Your task to perform on an android device: open app "Mercado Libre" Image 0: 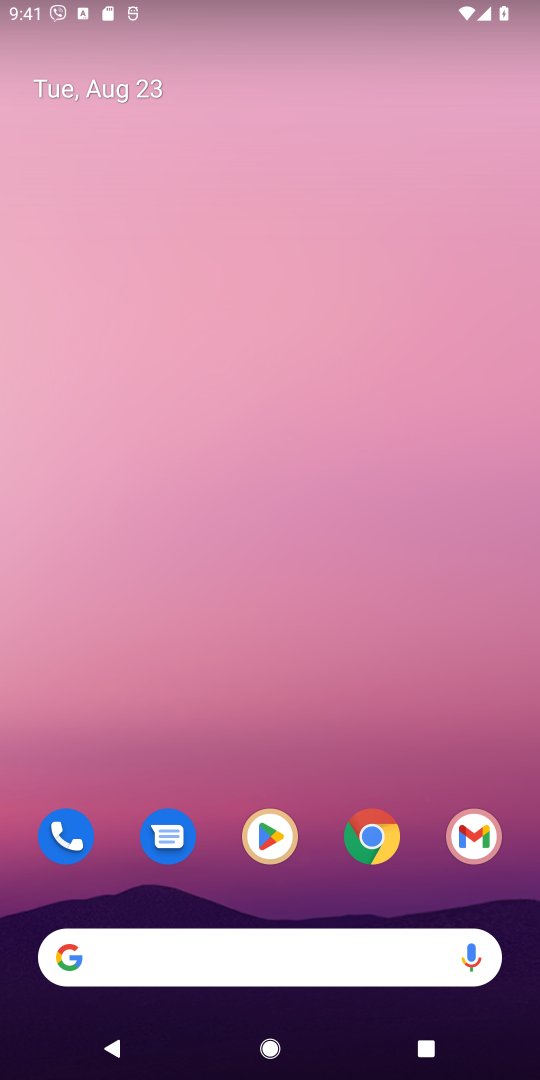
Step 0: click (272, 849)
Your task to perform on an android device: open app "Mercado Libre" Image 1: 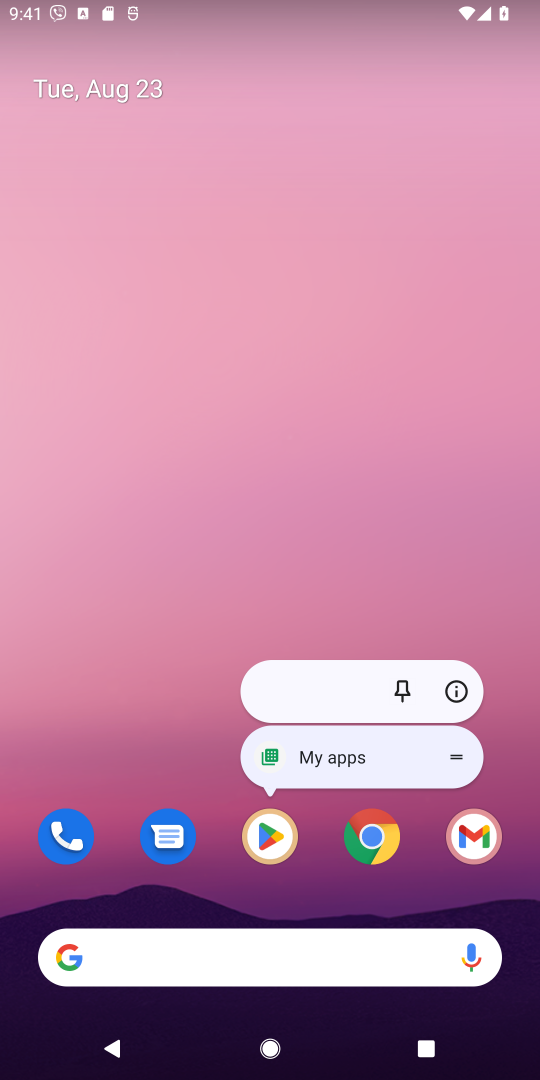
Step 1: click (272, 837)
Your task to perform on an android device: open app "Mercado Libre" Image 2: 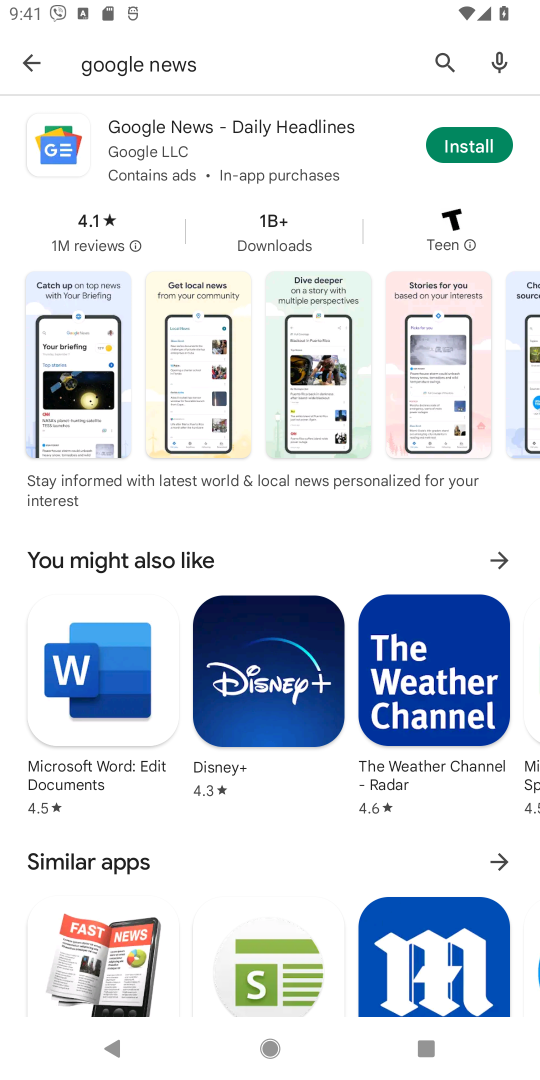
Step 2: click (445, 60)
Your task to perform on an android device: open app "Mercado Libre" Image 3: 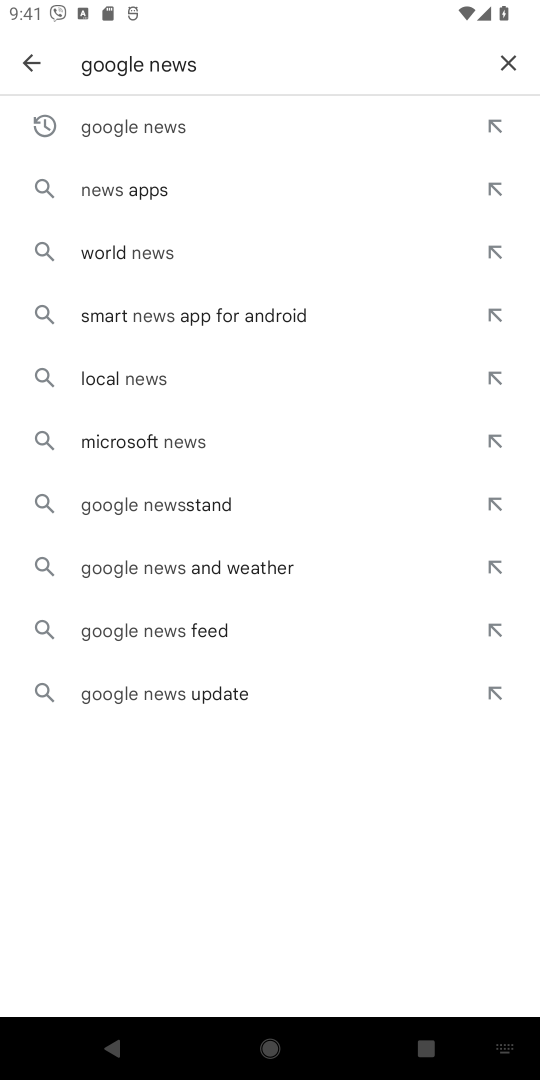
Step 3: click (504, 54)
Your task to perform on an android device: open app "Mercado Libre" Image 4: 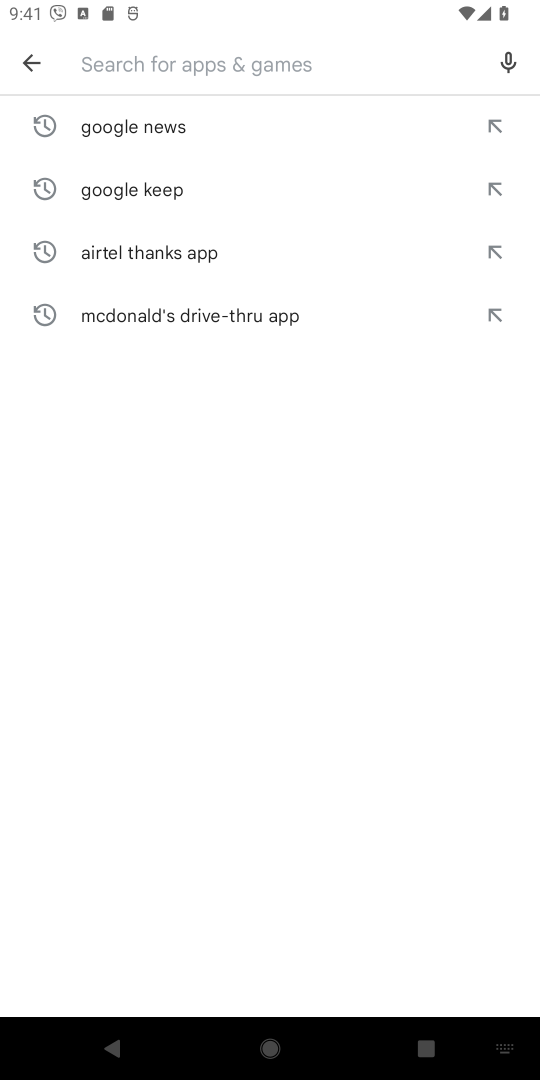
Step 4: type "Mercado Libre"
Your task to perform on an android device: open app "Mercado Libre" Image 5: 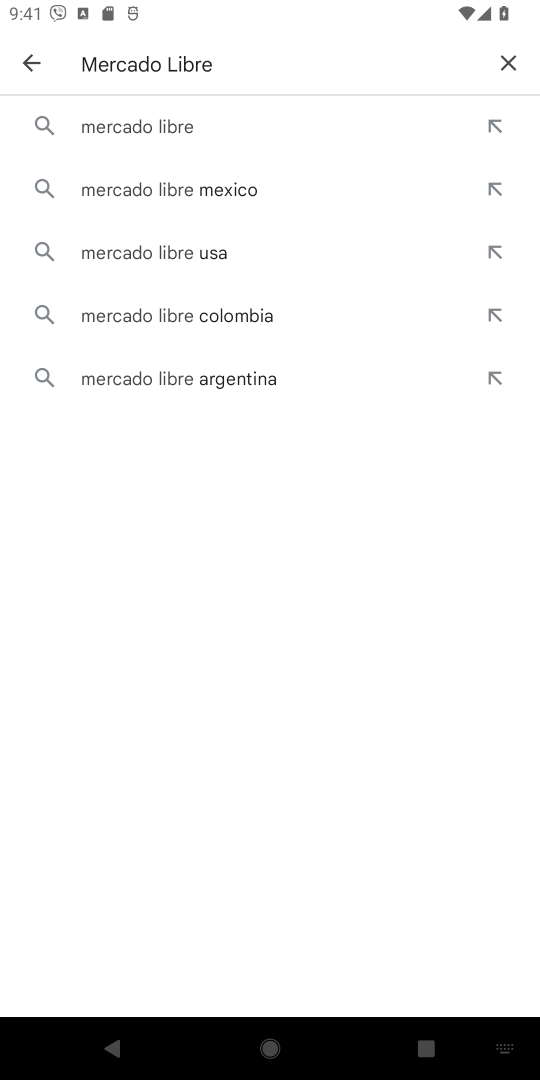
Step 5: click (194, 111)
Your task to perform on an android device: open app "Mercado Libre" Image 6: 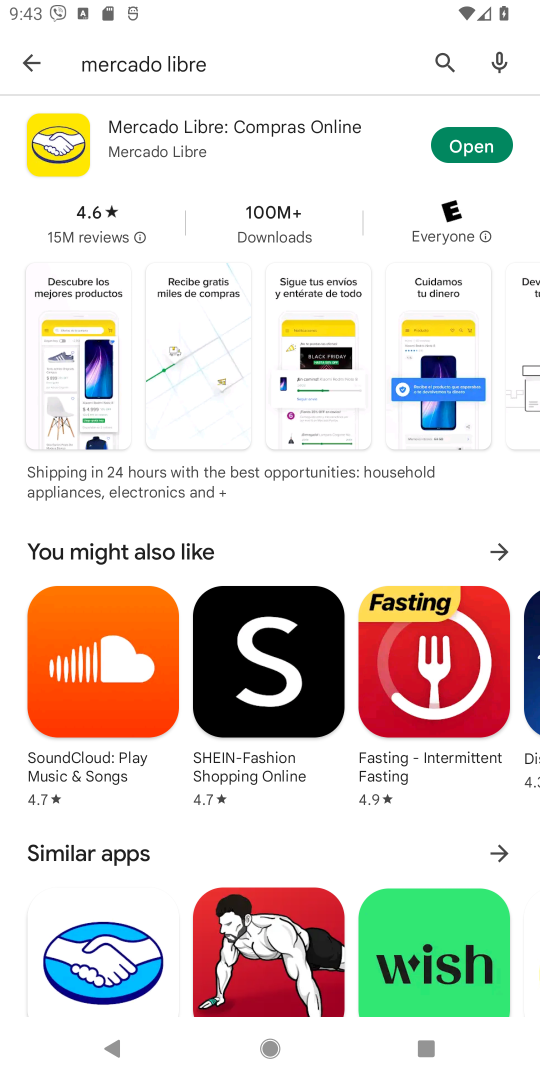
Step 6: click (489, 141)
Your task to perform on an android device: open app "Mercado Libre" Image 7: 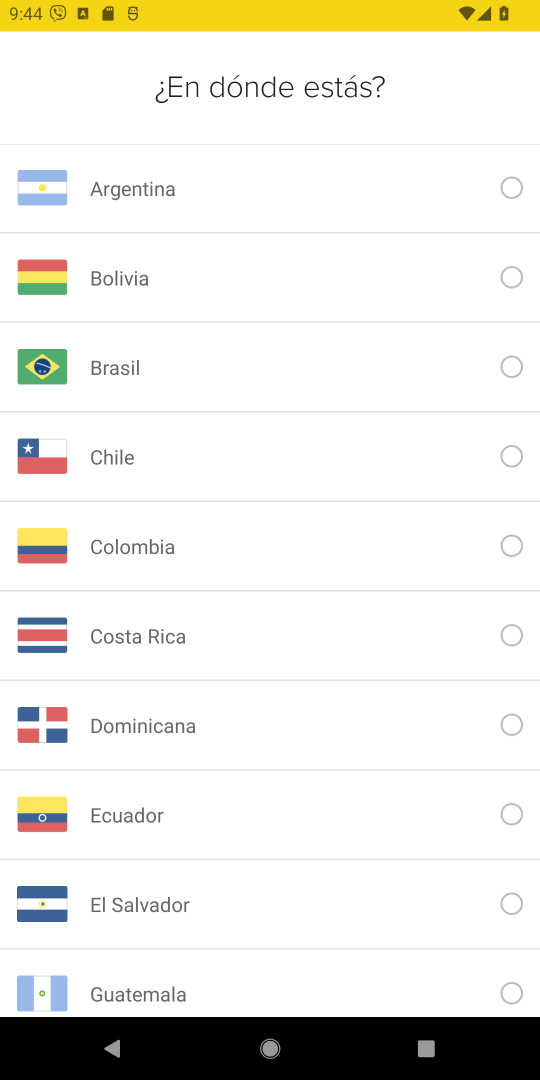
Step 7: task complete